Your task to perform on an android device: Search for Mexican restaurants on Maps Image 0: 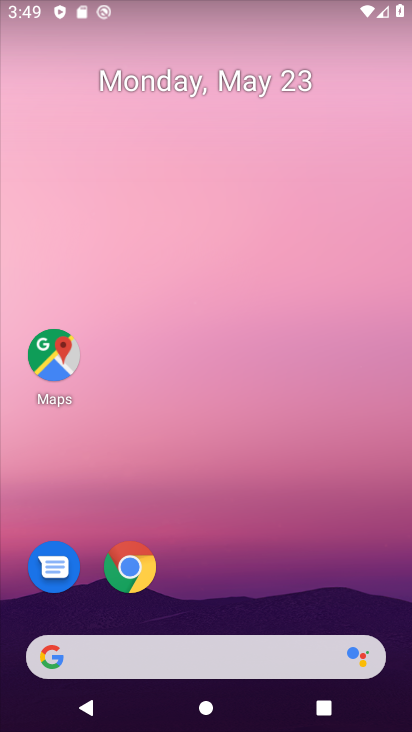
Step 0: click (54, 354)
Your task to perform on an android device: Search for Mexican restaurants on Maps Image 1: 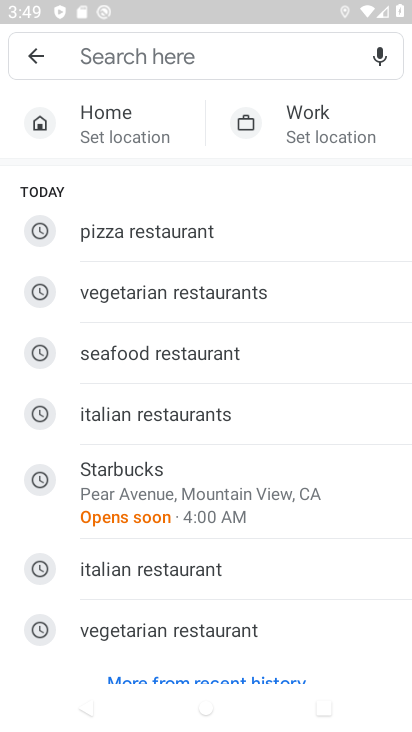
Step 1: click (94, 61)
Your task to perform on an android device: Search for Mexican restaurants on Maps Image 2: 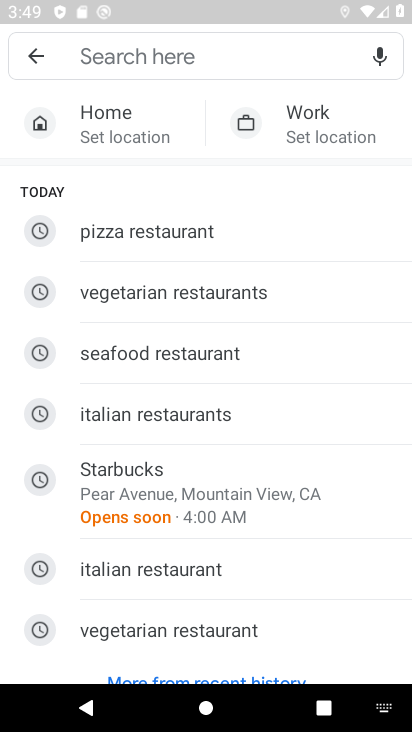
Step 2: type "mexican restaurants"
Your task to perform on an android device: Search for Mexican restaurants on Maps Image 3: 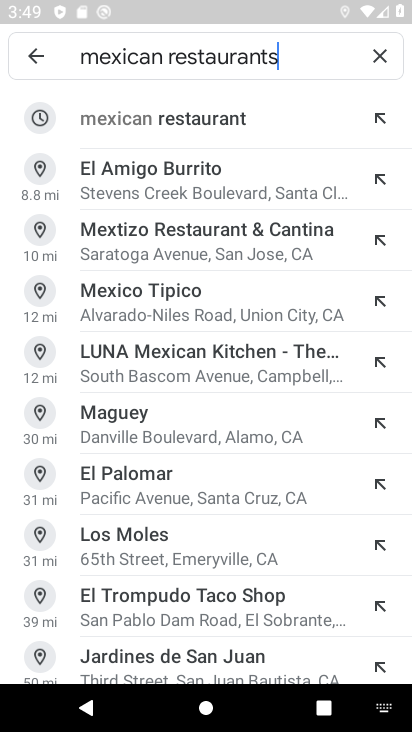
Step 3: click (155, 122)
Your task to perform on an android device: Search for Mexican restaurants on Maps Image 4: 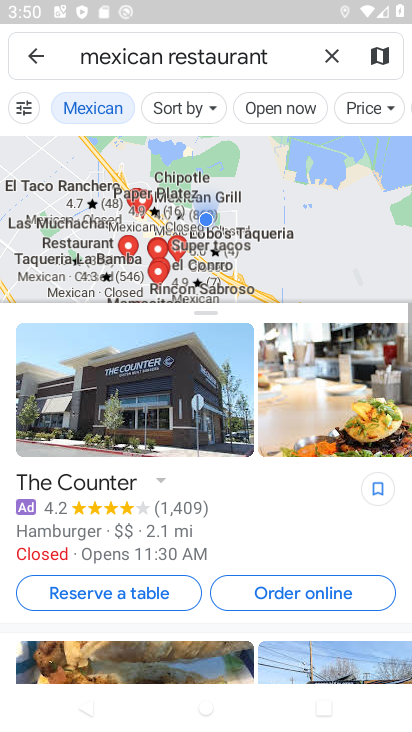
Step 4: task complete